Your task to perform on an android device: change the clock display to digital Image 0: 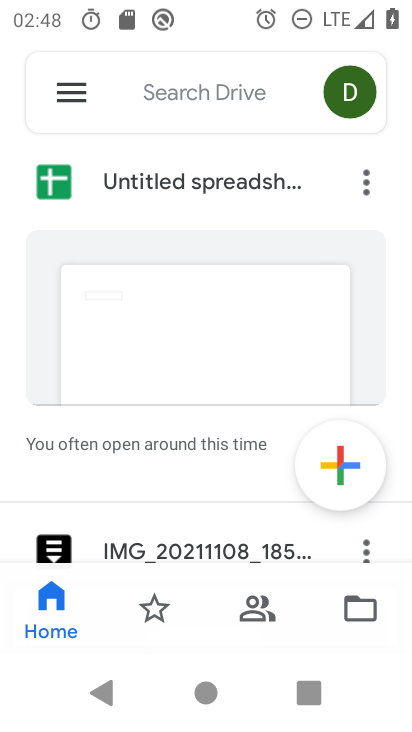
Step 0: press home button
Your task to perform on an android device: change the clock display to digital Image 1: 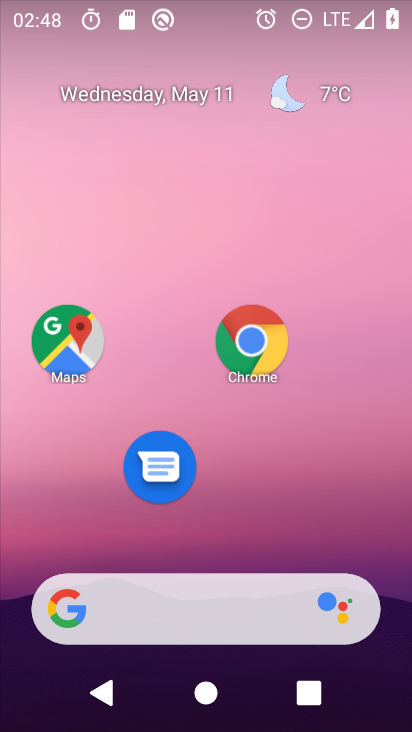
Step 1: drag from (241, 386) to (345, 110)
Your task to perform on an android device: change the clock display to digital Image 2: 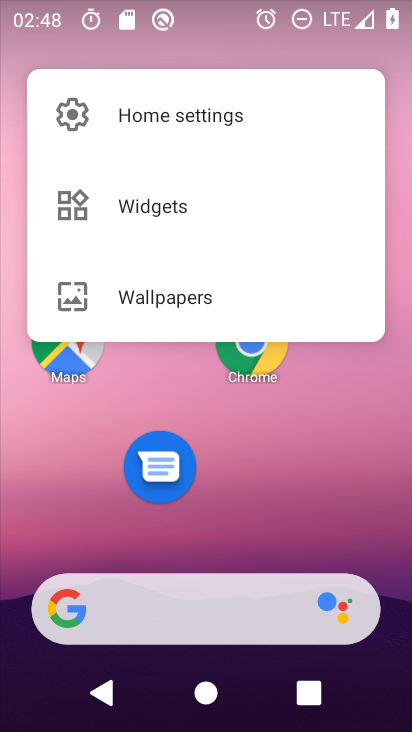
Step 2: drag from (184, 617) to (342, 52)
Your task to perform on an android device: change the clock display to digital Image 3: 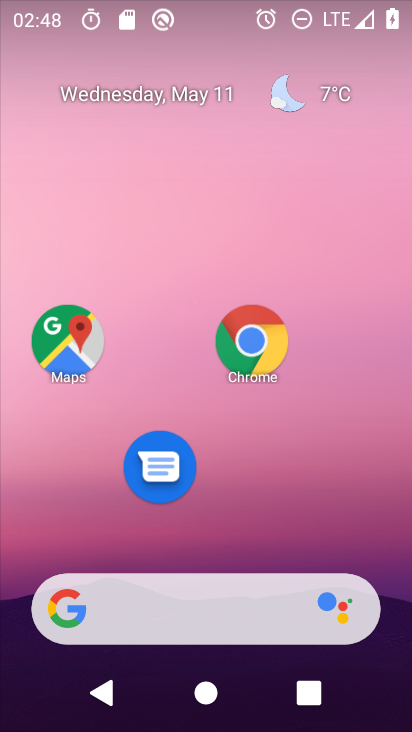
Step 3: drag from (188, 610) to (359, 51)
Your task to perform on an android device: change the clock display to digital Image 4: 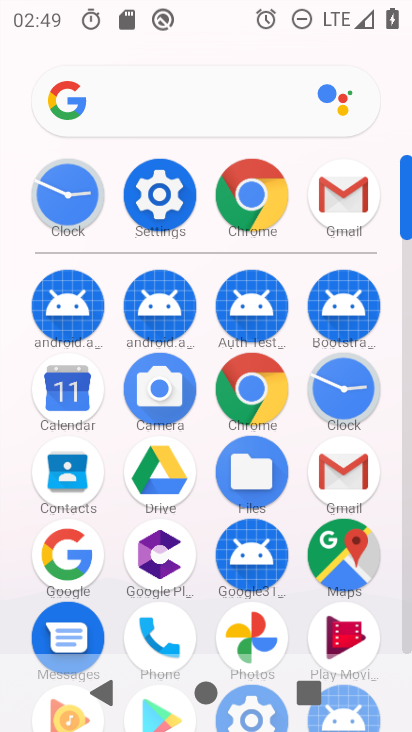
Step 4: click (337, 383)
Your task to perform on an android device: change the clock display to digital Image 5: 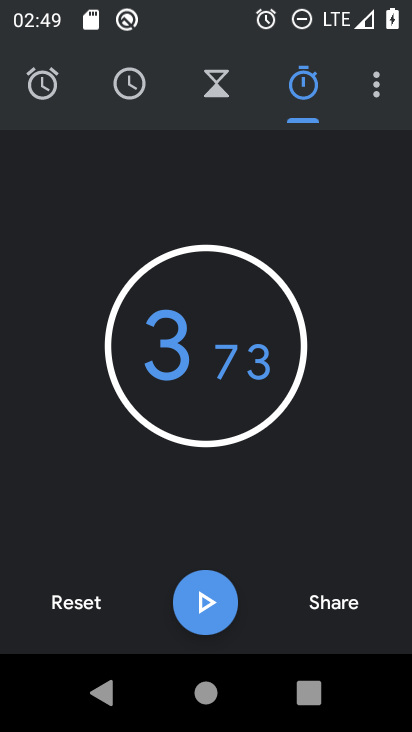
Step 5: click (378, 82)
Your task to perform on an android device: change the clock display to digital Image 6: 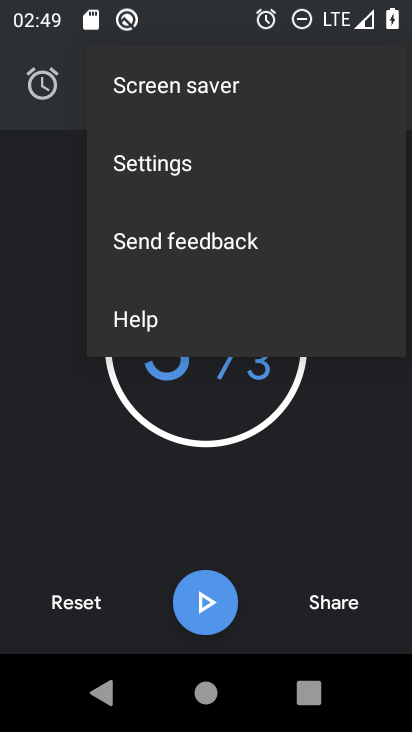
Step 6: click (177, 162)
Your task to perform on an android device: change the clock display to digital Image 7: 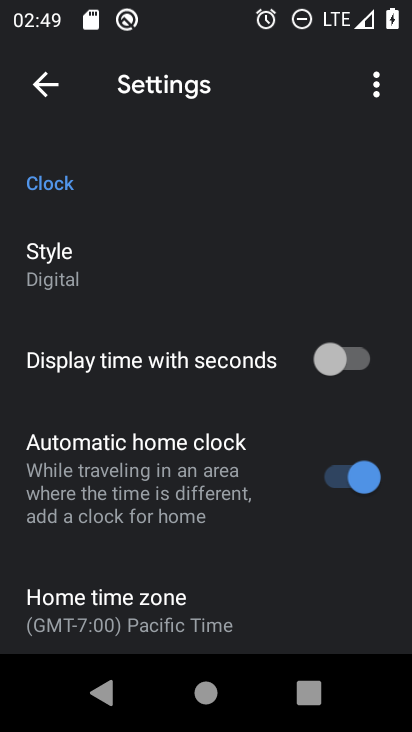
Step 7: task complete